Your task to perform on an android device: Open Yahoo.com Image 0: 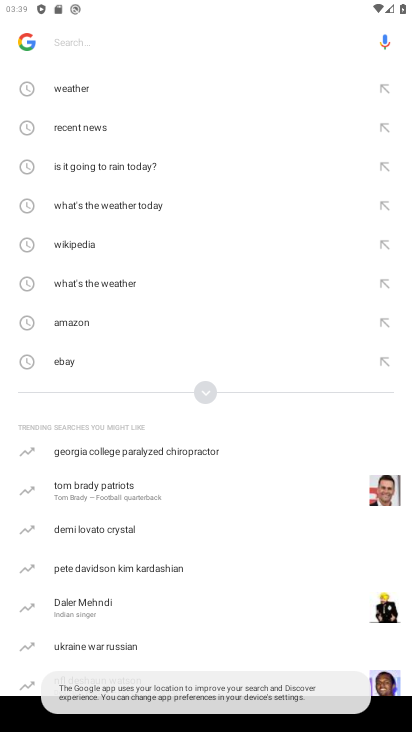
Step 0: press home button
Your task to perform on an android device: Open Yahoo.com Image 1: 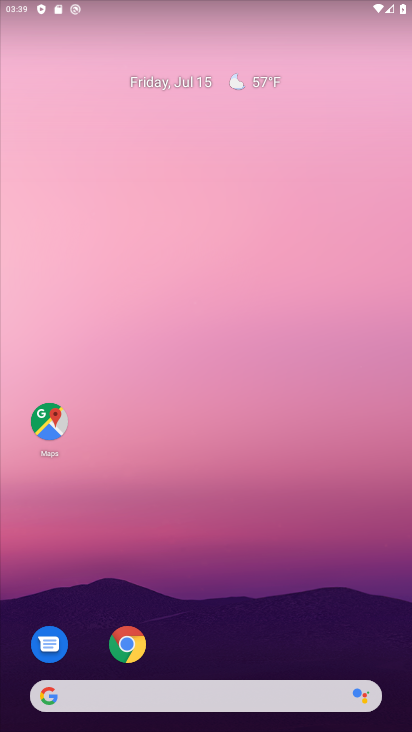
Step 1: click (124, 655)
Your task to perform on an android device: Open Yahoo.com Image 2: 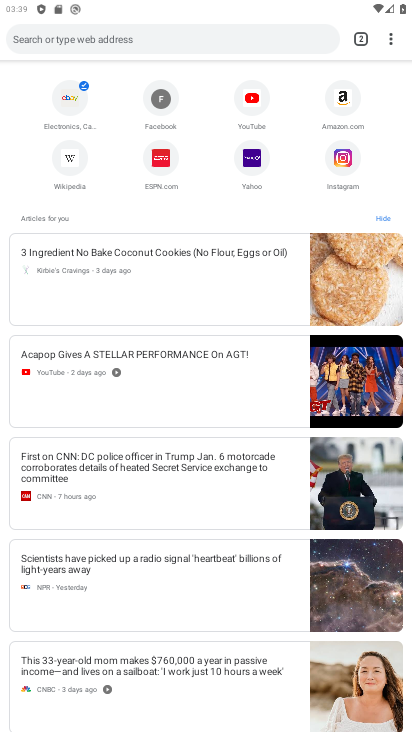
Step 2: click (249, 170)
Your task to perform on an android device: Open Yahoo.com Image 3: 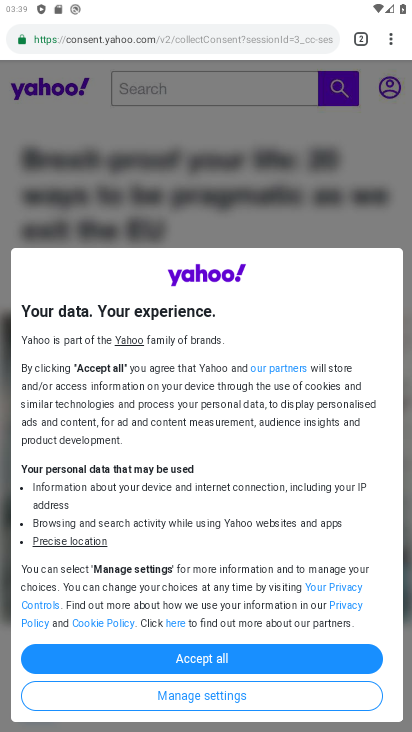
Step 3: task complete